Your task to perform on an android device: What's the weather going to be this weekend? Image 0: 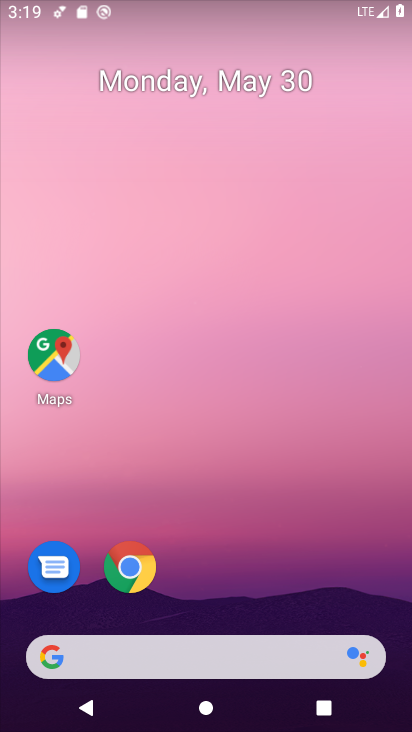
Step 0: click (190, 649)
Your task to perform on an android device: What's the weather going to be this weekend? Image 1: 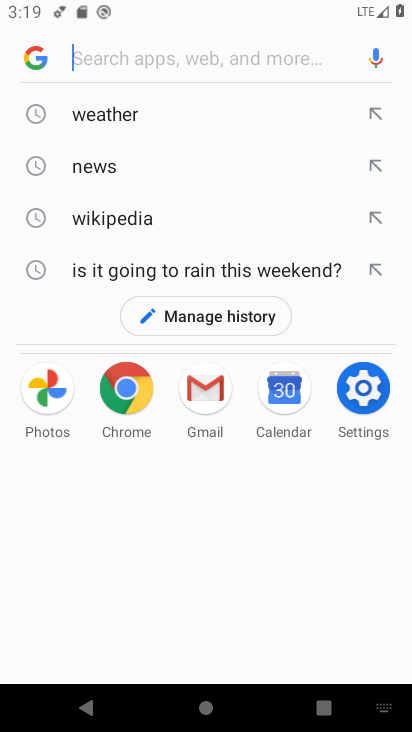
Step 1: type "what's the weather going to be this weekend"
Your task to perform on an android device: What's the weather going to be this weekend? Image 2: 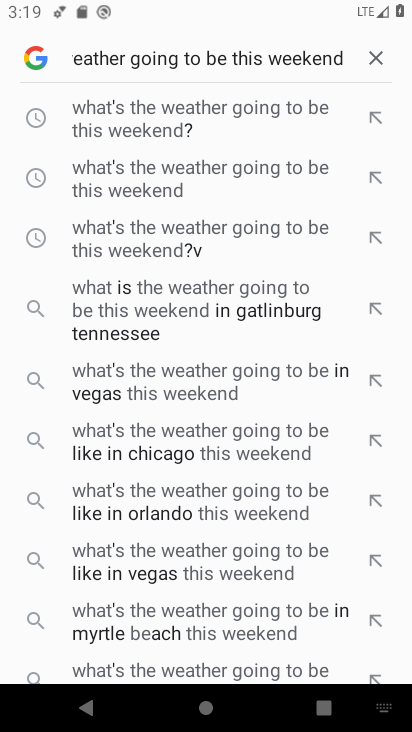
Step 2: click (212, 126)
Your task to perform on an android device: What's the weather going to be this weekend? Image 3: 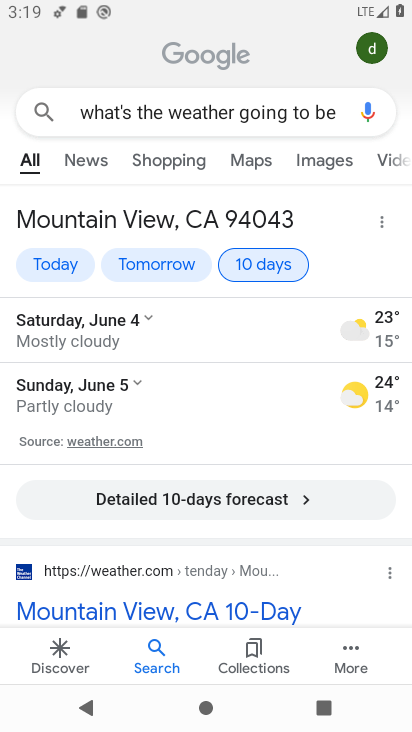
Step 3: task complete